Your task to perform on an android device: find which apps use the phone's location Image 0: 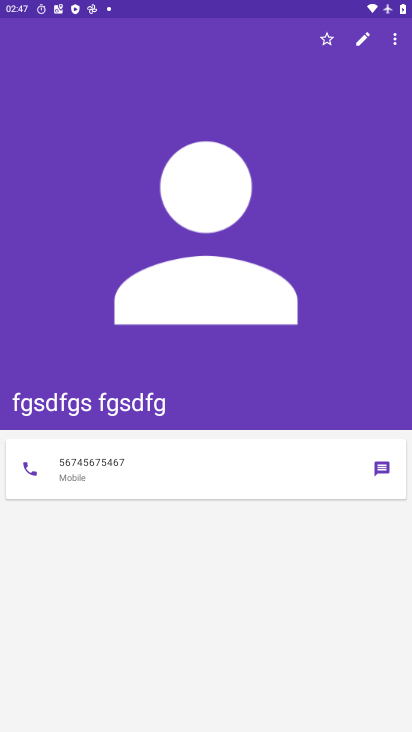
Step 0: press home button
Your task to perform on an android device: find which apps use the phone's location Image 1: 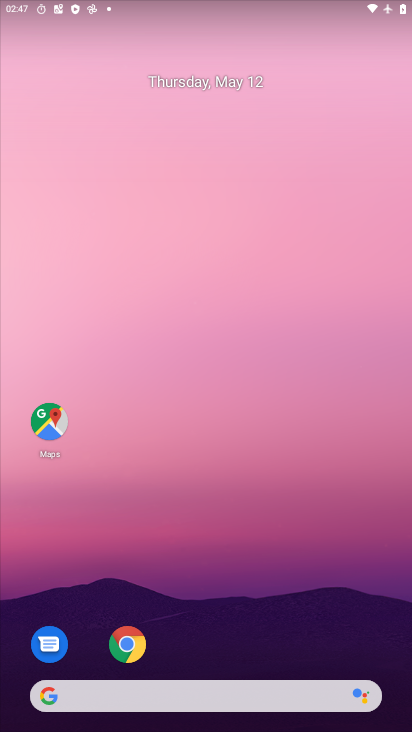
Step 1: drag from (264, 577) to (197, 112)
Your task to perform on an android device: find which apps use the phone's location Image 2: 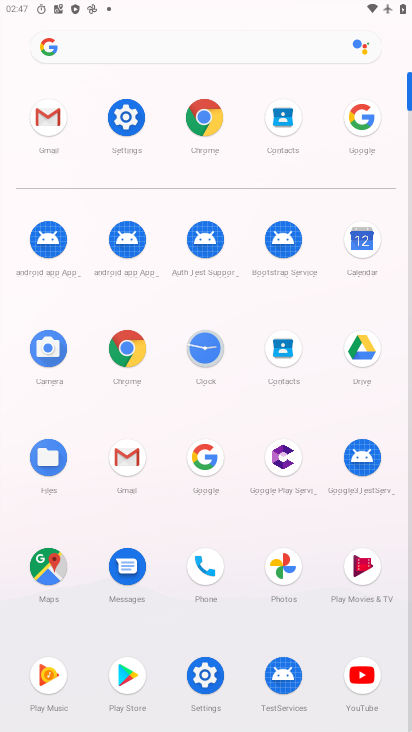
Step 2: click (115, 103)
Your task to perform on an android device: find which apps use the phone's location Image 3: 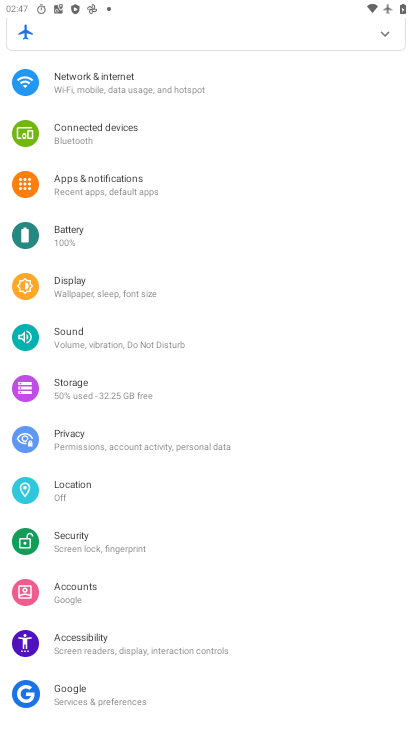
Step 3: click (124, 493)
Your task to perform on an android device: find which apps use the phone's location Image 4: 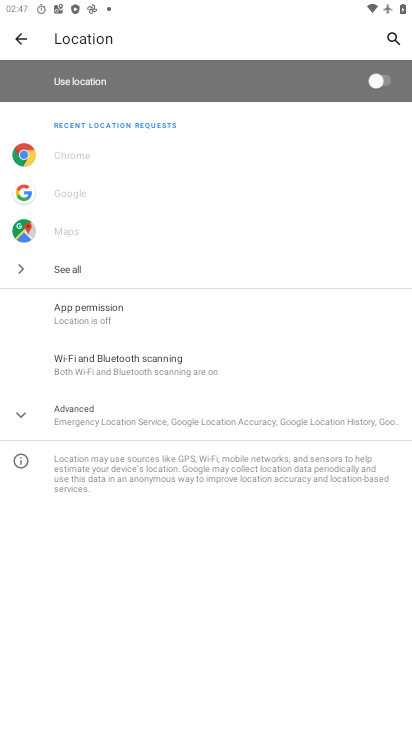
Step 4: click (123, 309)
Your task to perform on an android device: find which apps use the phone's location Image 5: 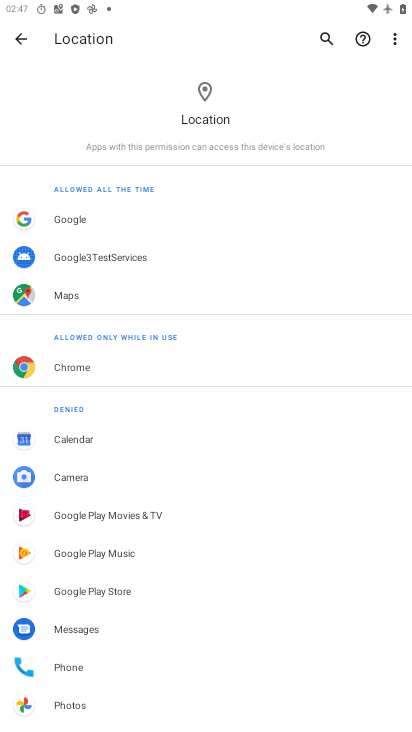
Step 5: task complete